Your task to perform on an android device: When is my next meeting? Image 0: 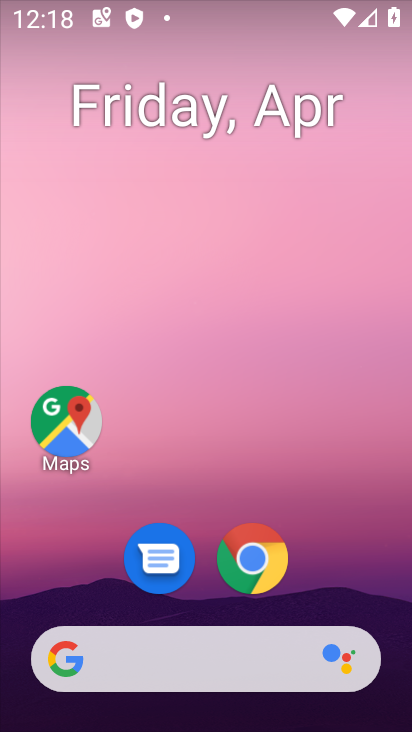
Step 0: drag from (383, 593) to (269, 52)
Your task to perform on an android device: When is my next meeting? Image 1: 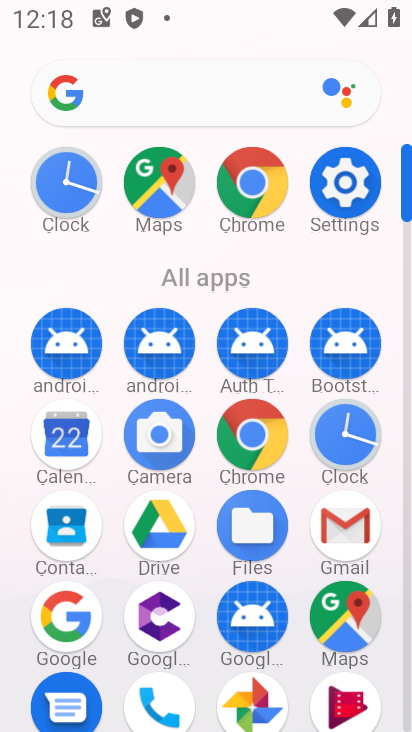
Step 1: click (78, 440)
Your task to perform on an android device: When is my next meeting? Image 2: 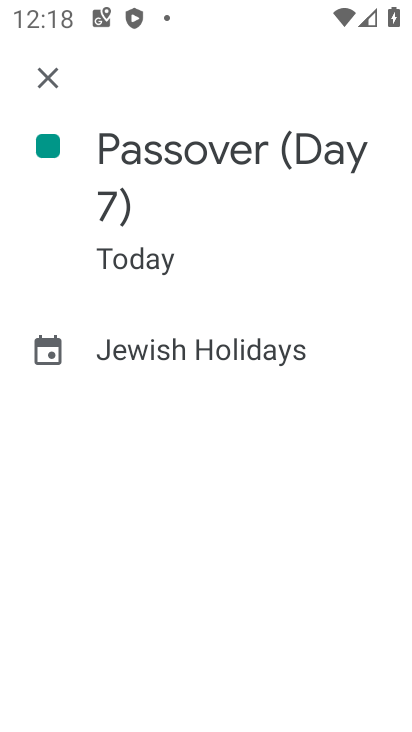
Step 2: click (24, 71)
Your task to perform on an android device: When is my next meeting? Image 3: 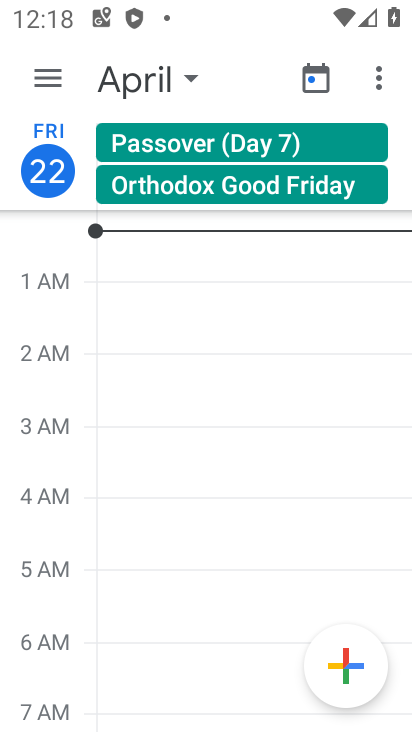
Step 3: click (42, 77)
Your task to perform on an android device: When is my next meeting? Image 4: 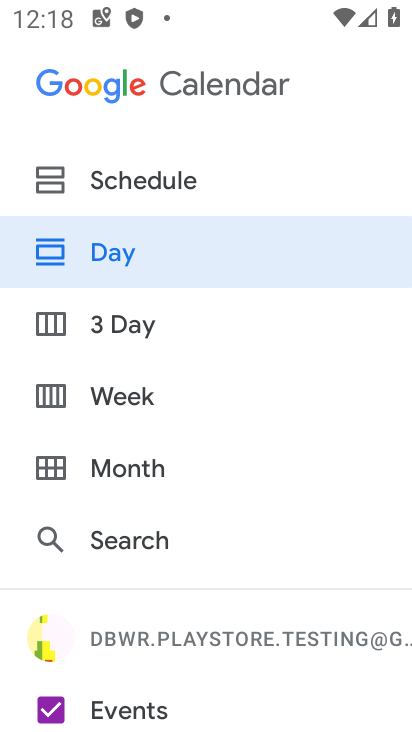
Step 4: click (180, 188)
Your task to perform on an android device: When is my next meeting? Image 5: 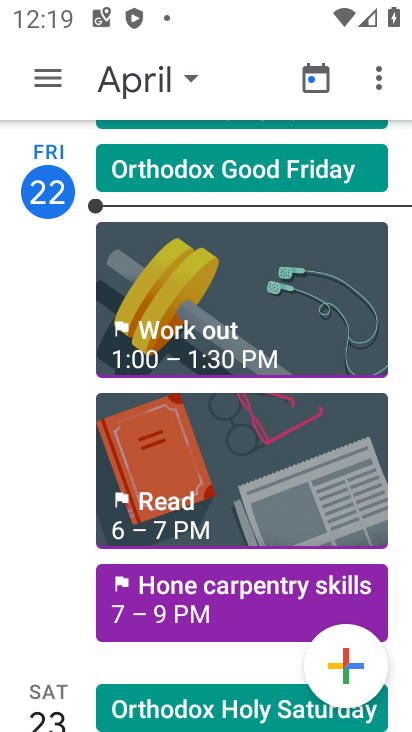
Step 5: task complete